Your task to perform on an android device: Do I have any events this weekend? Image 0: 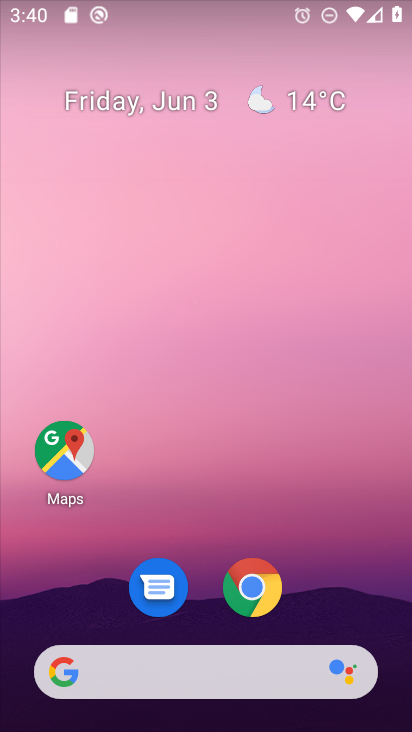
Step 0: drag from (218, 724) to (218, 143)
Your task to perform on an android device: Do I have any events this weekend? Image 1: 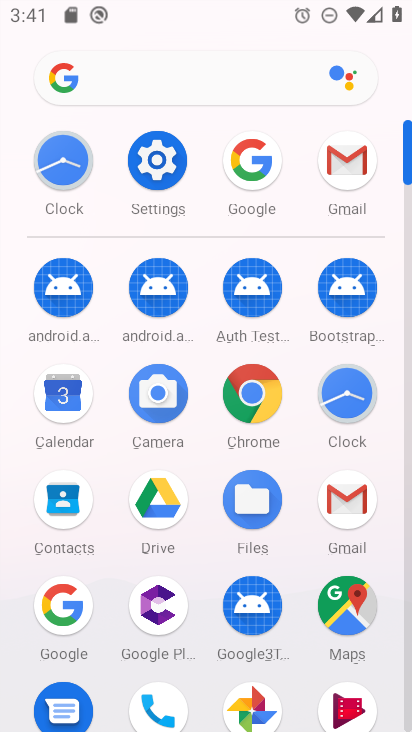
Step 1: click (61, 400)
Your task to perform on an android device: Do I have any events this weekend? Image 2: 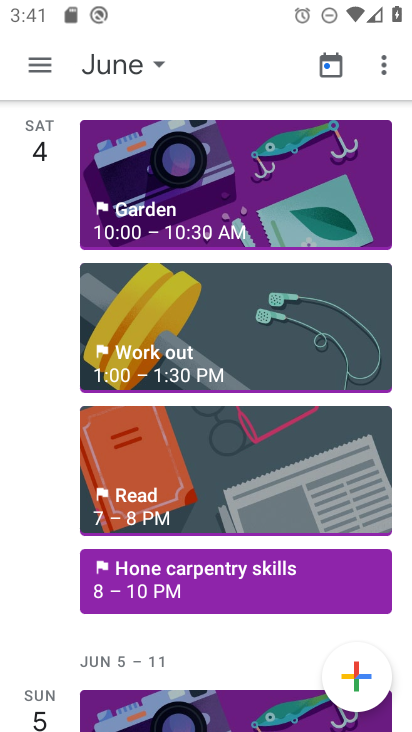
Step 2: click (158, 64)
Your task to perform on an android device: Do I have any events this weekend? Image 3: 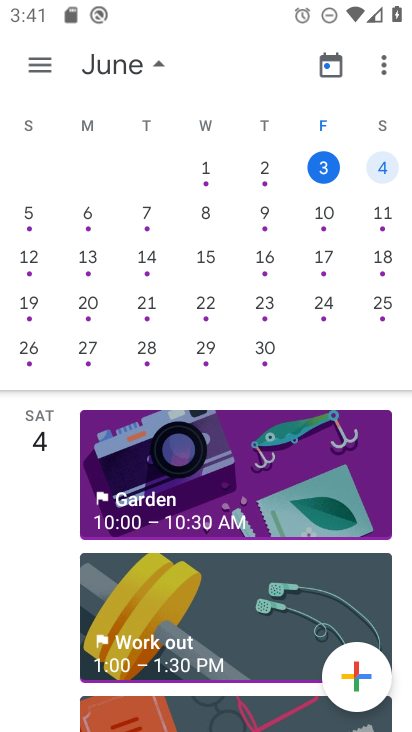
Step 3: click (379, 168)
Your task to perform on an android device: Do I have any events this weekend? Image 4: 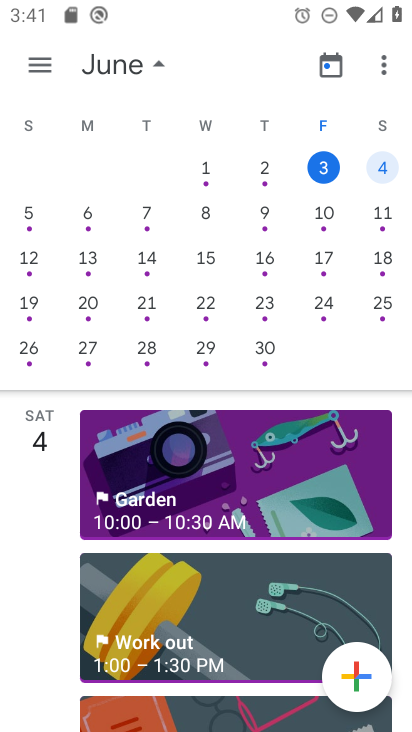
Step 4: click (379, 166)
Your task to perform on an android device: Do I have any events this weekend? Image 5: 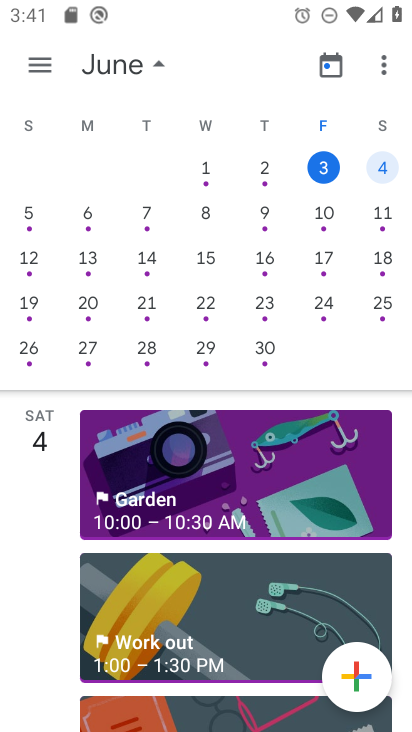
Step 5: task complete